Your task to perform on an android device: Search for Italian restaurants on Maps Image 0: 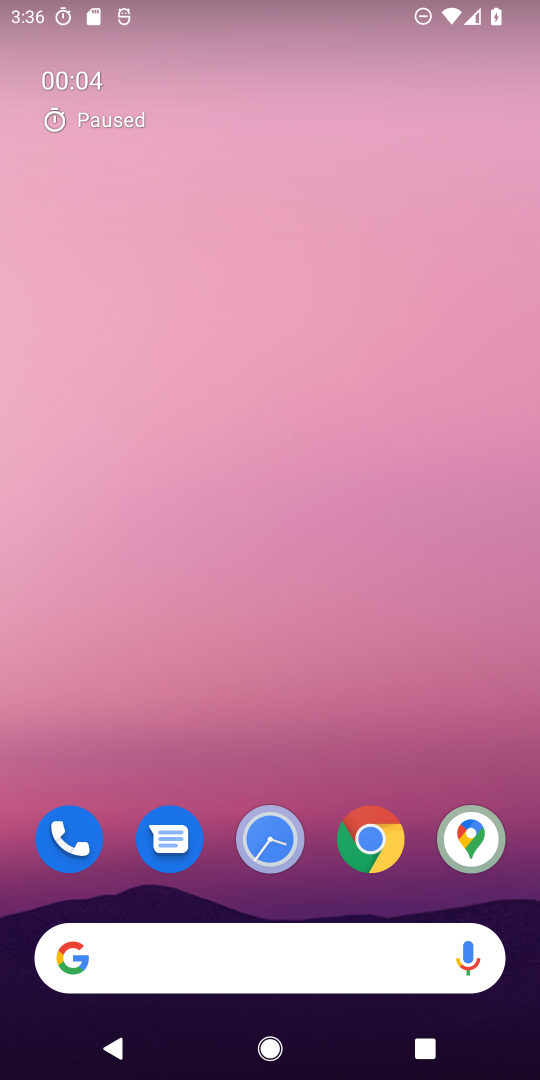
Step 0: click (473, 843)
Your task to perform on an android device: Search for Italian restaurants on Maps Image 1: 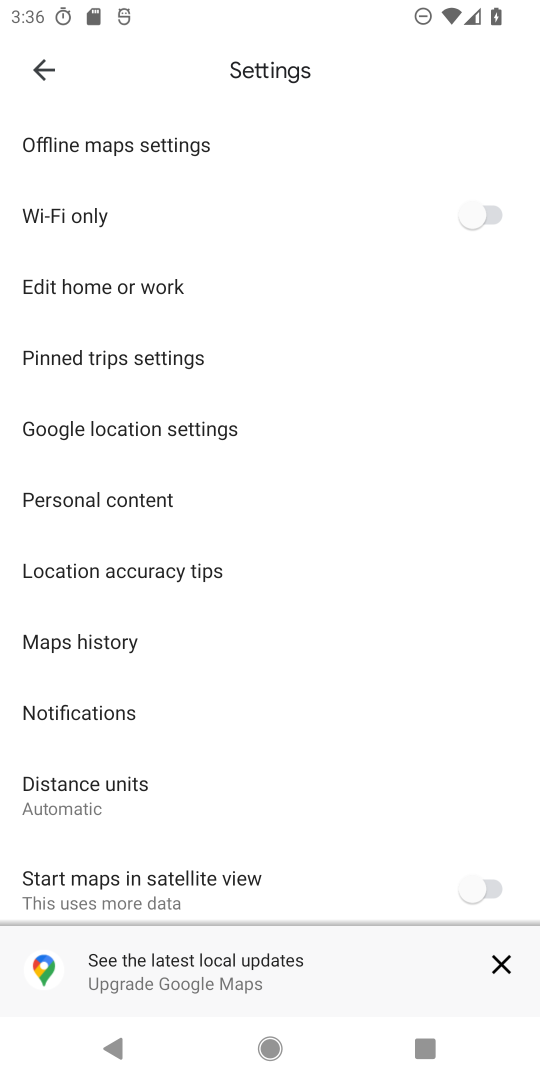
Step 1: click (44, 73)
Your task to perform on an android device: Search for Italian restaurants on Maps Image 2: 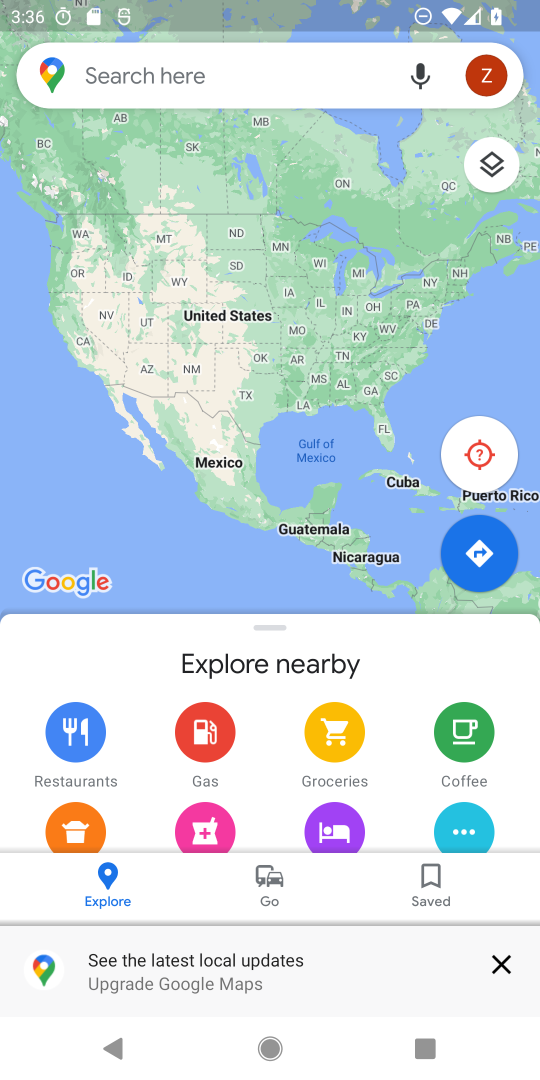
Step 2: click (119, 85)
Your task to perform on an android device: Search for Italian restaurants on Maps Image 3: 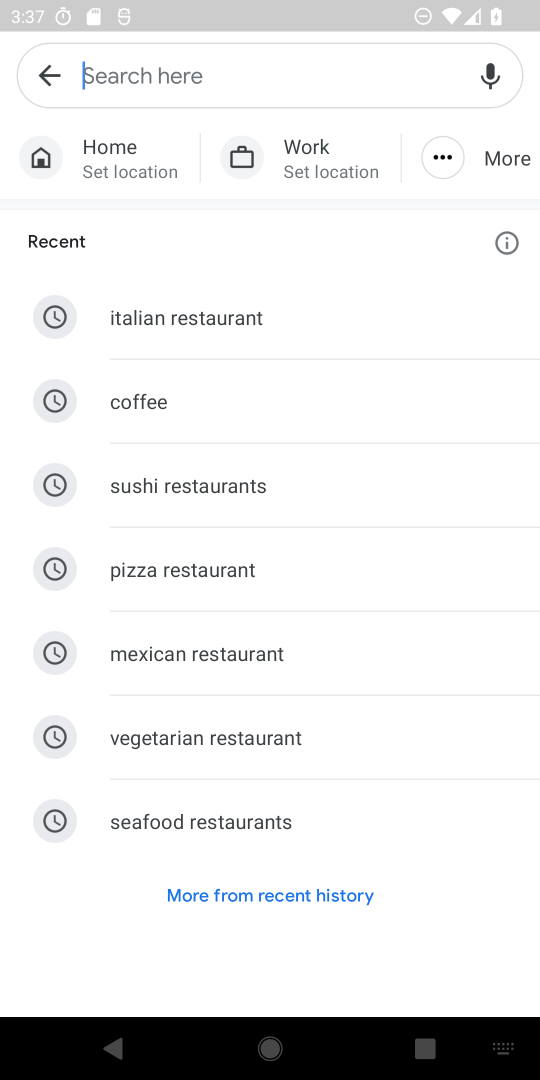
Step 3: type "Italian restaurants"
Your task to perform on an android device: Search for Italian restaurants on Maps Image 4: 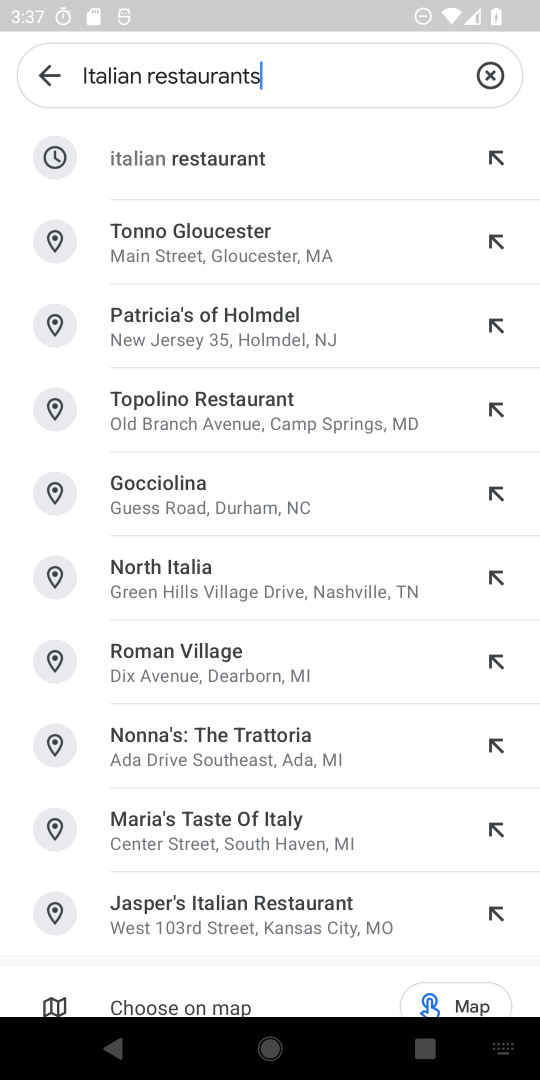
Step 4: click (310, 172)
Your task to perform on an android device: Search for Italian restaurants on Maps Image 5: 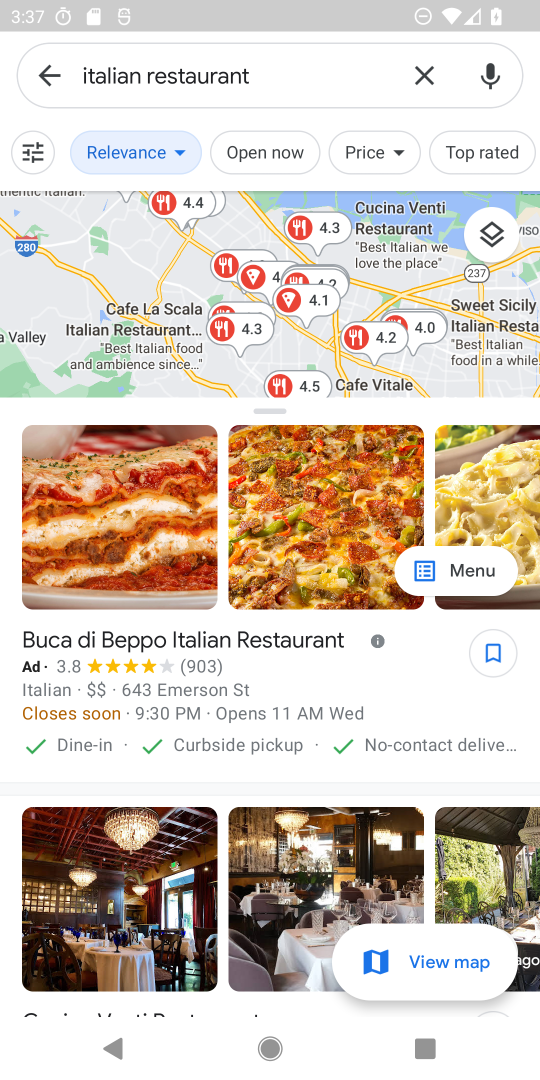
Step 5: task complete